Your task to perform on an android device: open device folders in google photos Image 0: 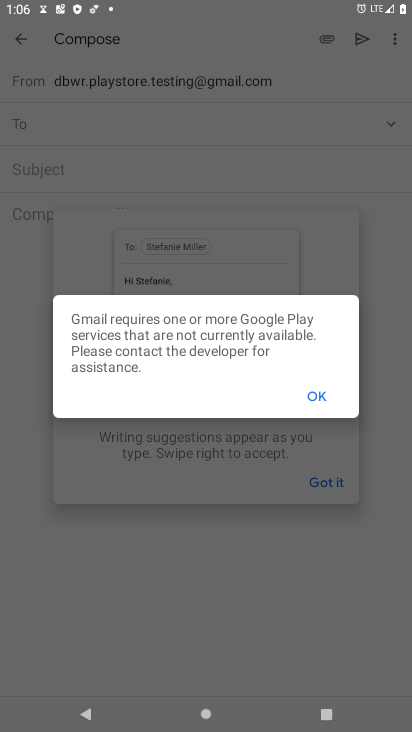
Step 0: press home button
Your task to perform on an android device: open device folders in google photos Image 1: 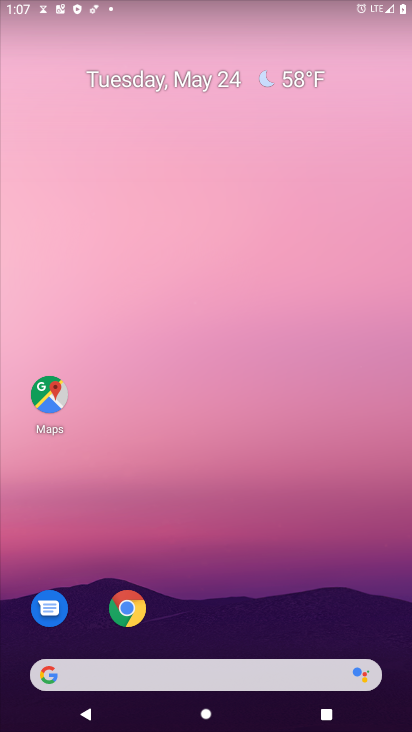
Step 1: drag from (241, 692) to (204, 230)
Your task to perform on an android device: open device folders in google photos Image 2: 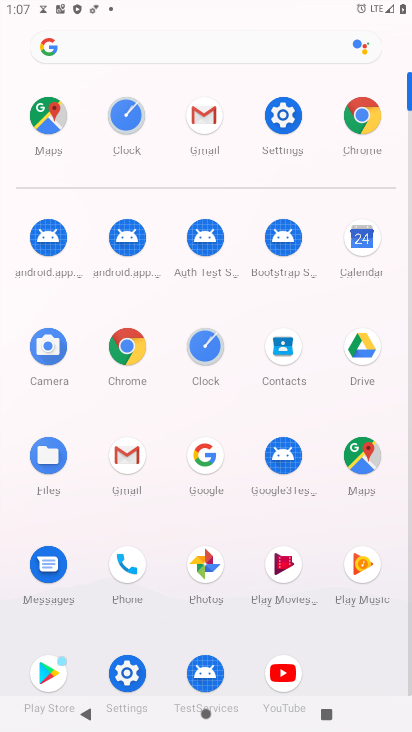
Step 2: click (203, 558)
Your task to perform on an android device: open device folders in google photos Image 3: 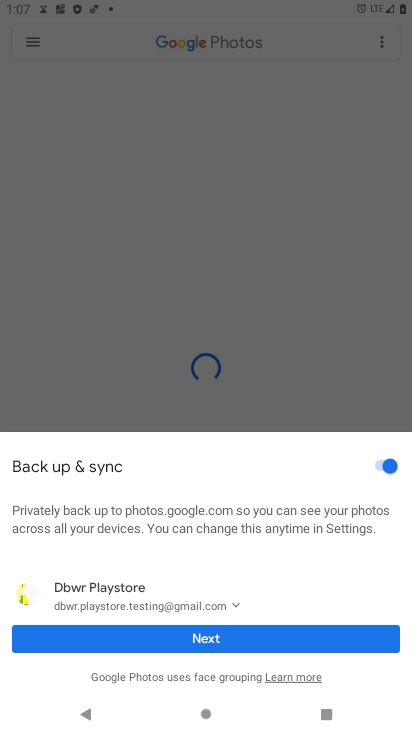
Step 3: click (154, 636)
Your task to perform on an android device: open device folders in google photos Image 4: 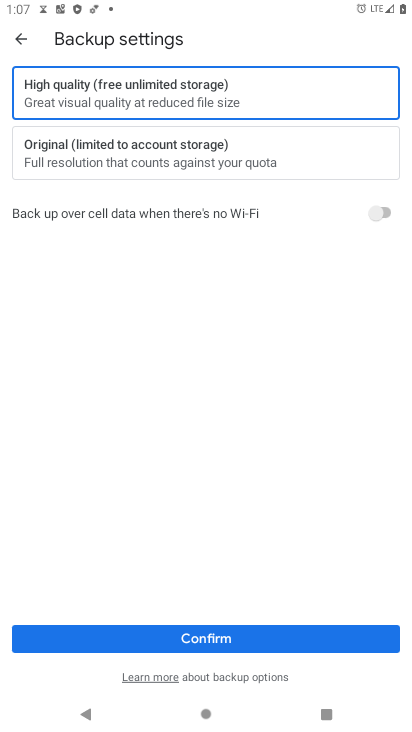
Step 4: click (211, 634)
Your task to perform on an android device: open device folders in google photos Image 5: 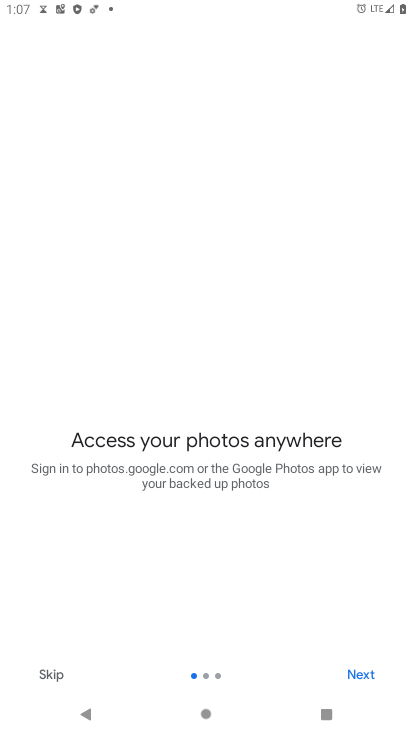
Step 5: click (355, 680)
Your task to perform on an android device: open device folders in google photos Image 6: 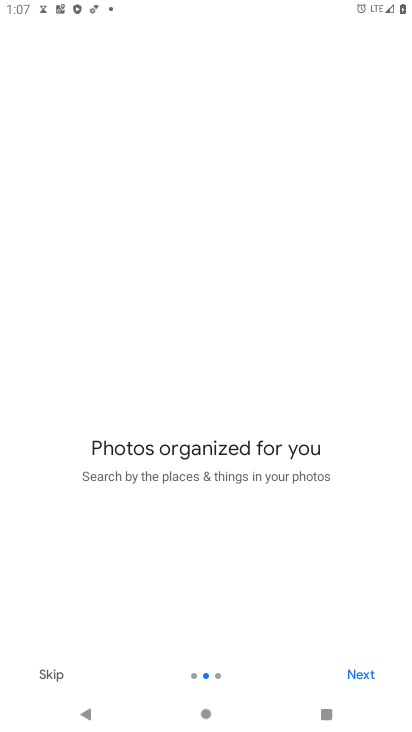
Step 6: click (369, 674)
Your task to perform on an android device: open device folders in google photos Image 7: 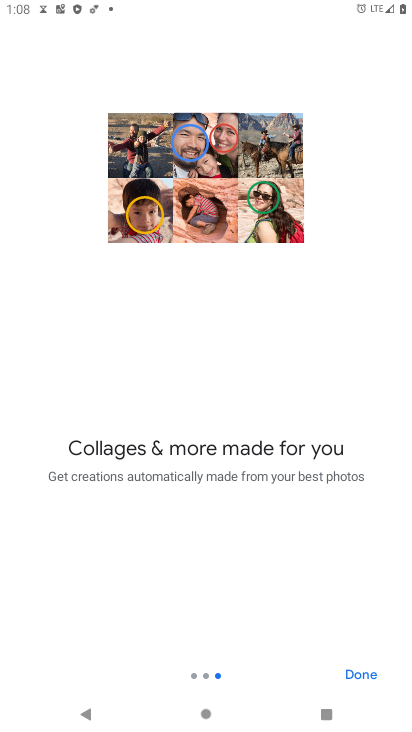
Step 7: click (369, 674)
Your task to perform on an android device: open device folders in google photos Image 8: 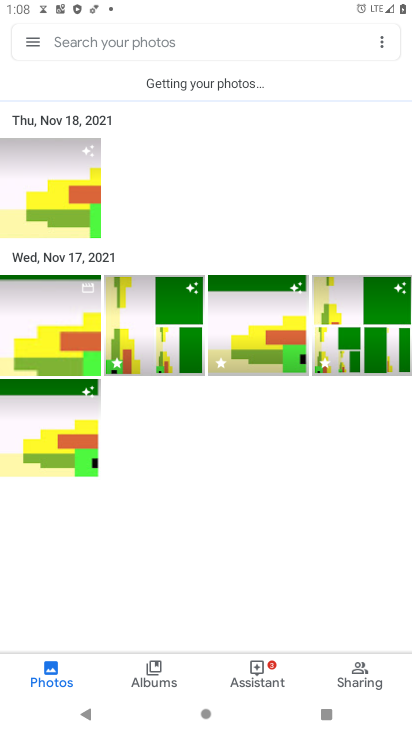
Step 8: click (38, 39)
Your task to perform on an android device: open device folders in google photos Image 9: 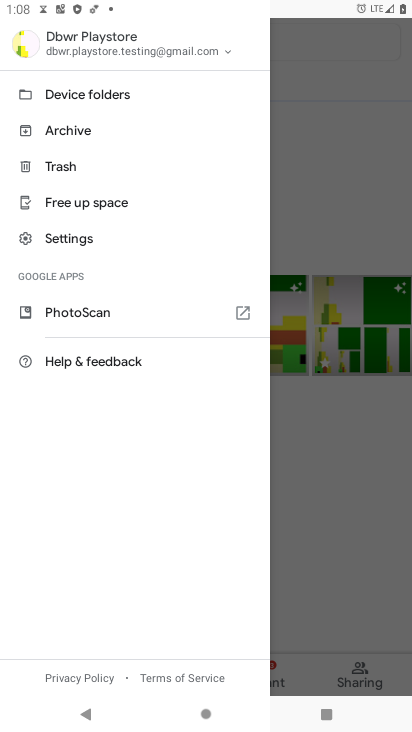
Step 9: click (111, 108)
Your task to perform on an android device: open device folders in google photos Image 10: 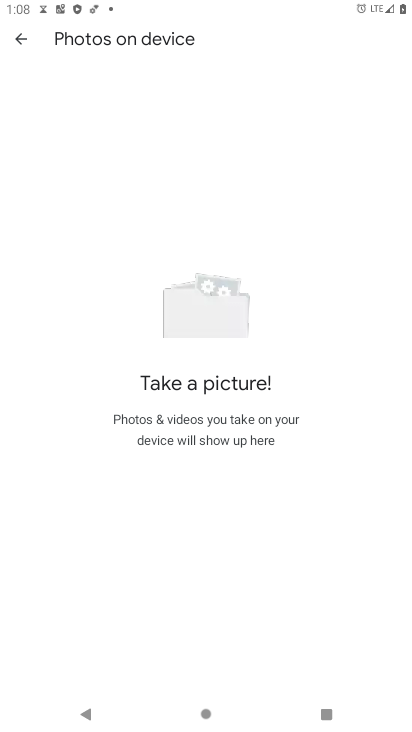
Step 10: task complete